Your task to perform on an android device: See recent photos Image 0: 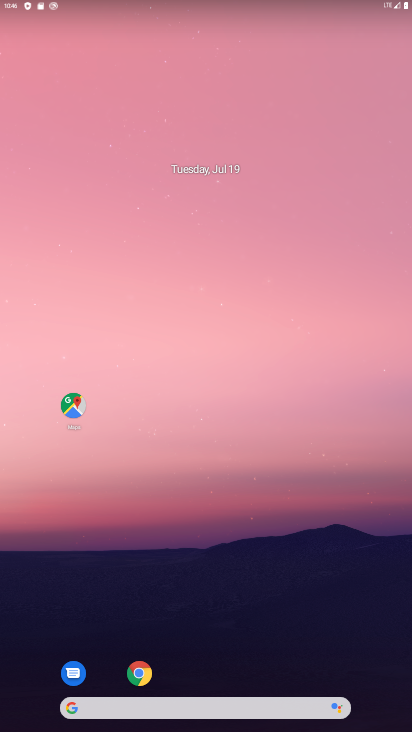
Step 0: drag from (199, 675) to (261, 85)
Your task to perform on an android device: See recent photos Image 1: 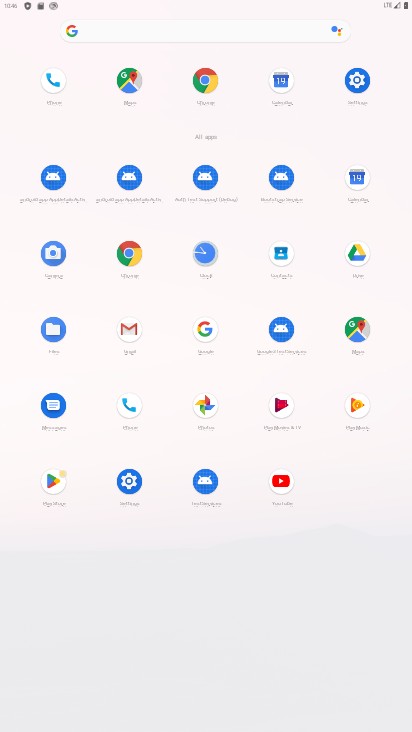
Step 1: click (203, 405)
Your task to perform on an android device: See recent photos Image 2: 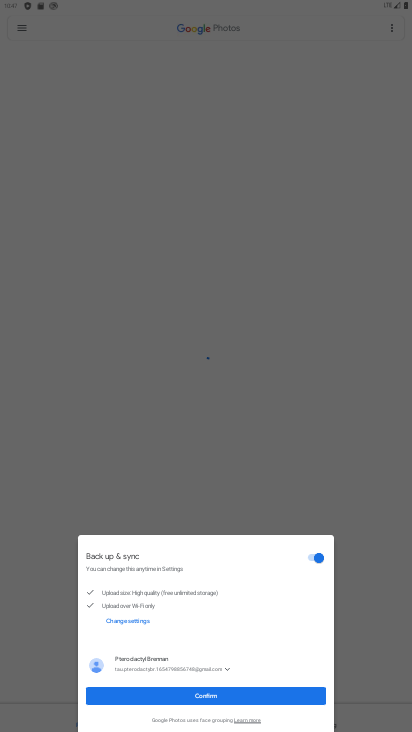
Step 2: click (221, 693)
Your task to perform on an android device: See recent photos Image 3: 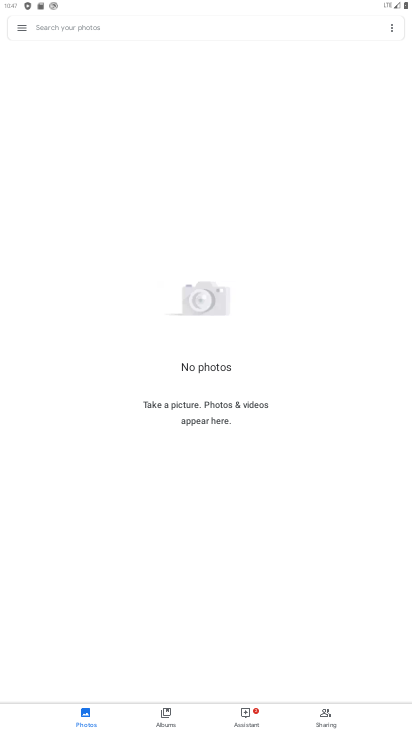
Step 3: task complete